Your task to perform on an android device: turn on priority inbox in the gmail app Image 0: 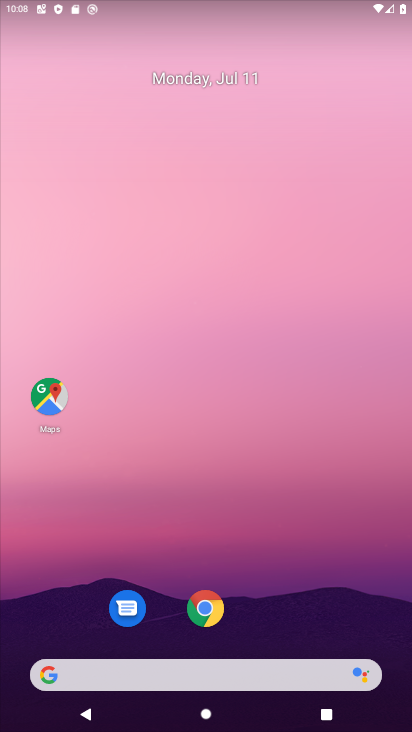
Step 0: drag from (35, 722) to (160, 0)
Your task to perform on an android device: turn on priority inbox in the gmail app Image 1: 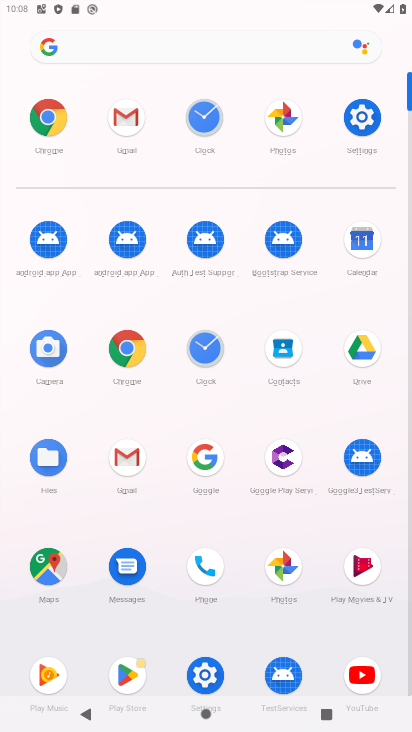
Step 1: click (112, 456)
Your task to perform on an android device: turn on priority inbox in the gmail app Image 2: 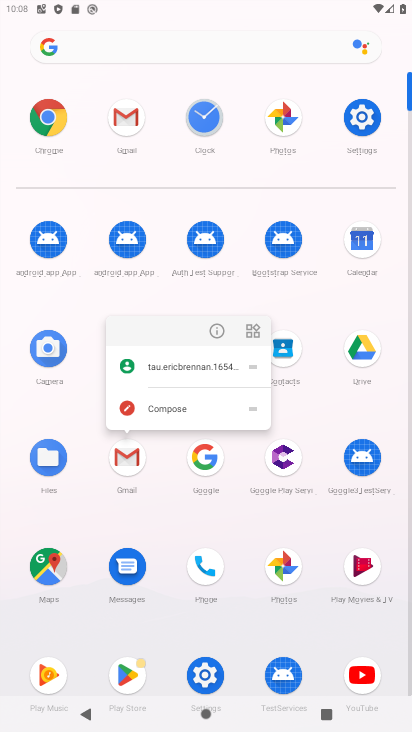
Step 2: click (121, 456)
Your task to perform on an android device: turn on priority inbox in the gmail app Image 3: 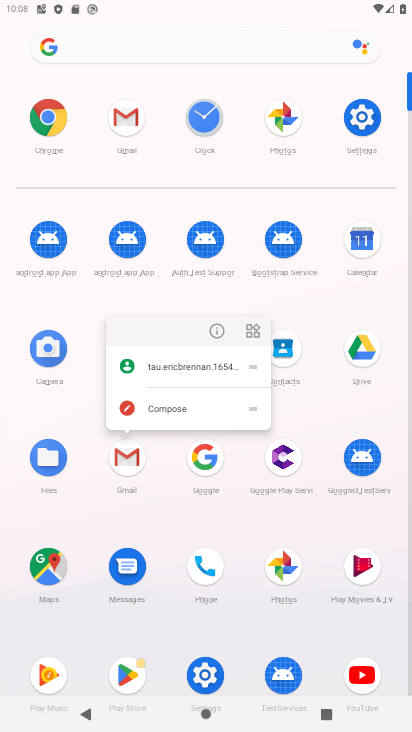
Step 3: click (121, 456)
Your task to perform on an android device: turn on priority inbox in the gmail app Image 4: 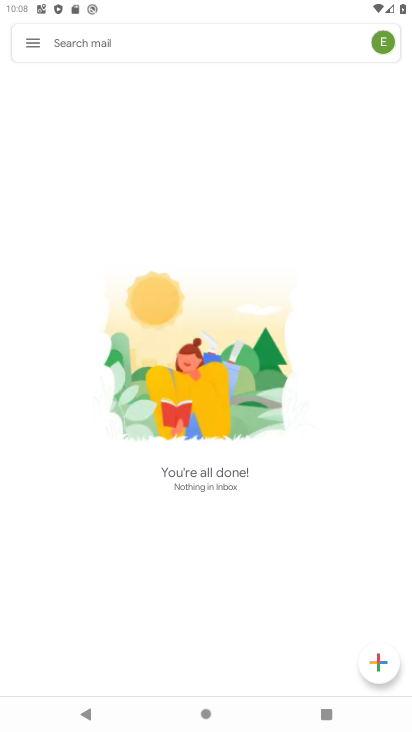
Step 4: click (25, 37)
Your task to perform on an android device: turn on priority inbox in the gmail app Image 5: 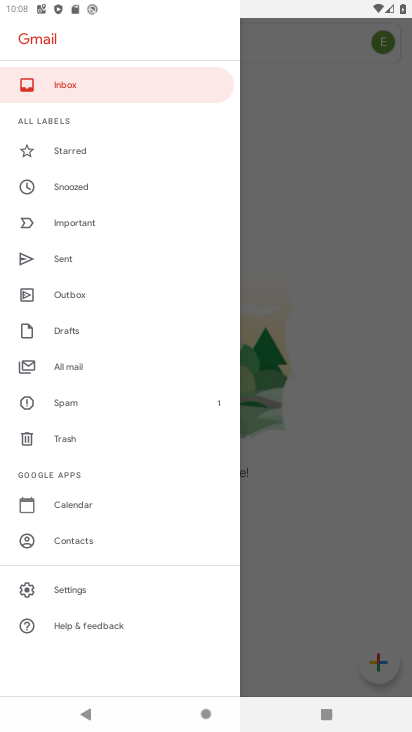
Step 5: click (92, 586)
Your task to perform on an android device: turn on priority inbox in the gmail app Image 6: 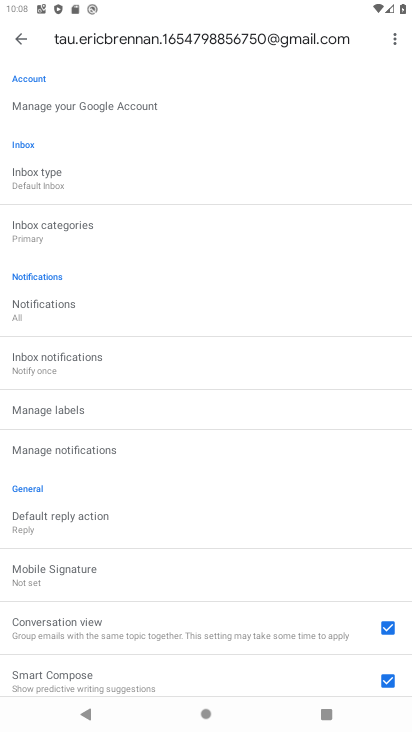
Step 6: click (64, 301)
Your task to perform on an android device: turn on priority inbox in the gmail app Image 7: 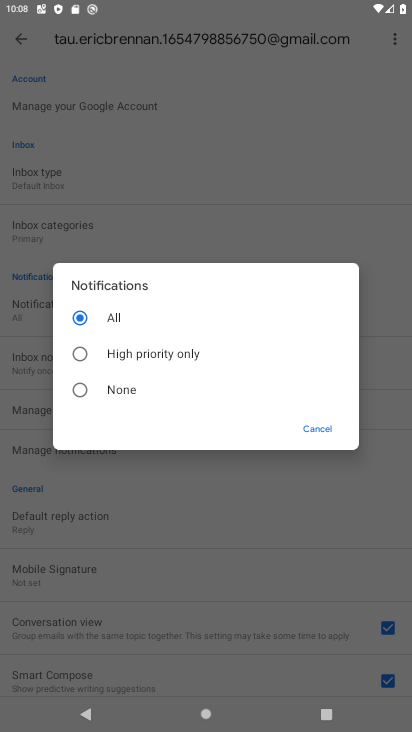
Step 7: click (316, 424)
Your task to perform on an android device: turn on priority inbox in the gmail app Image 8: 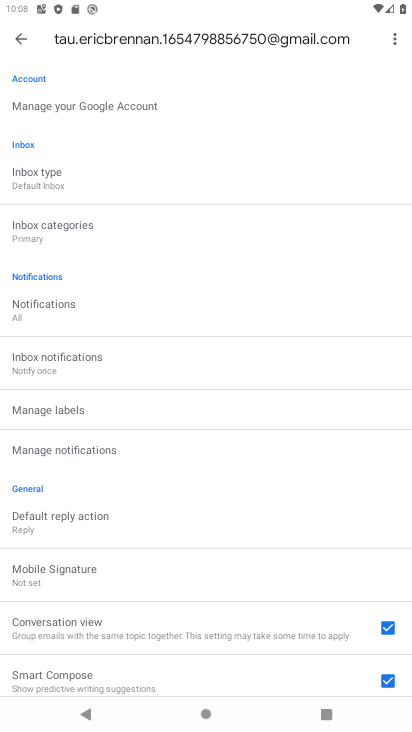
Step 8: click (91, 179)
Your task to perform on an android device: turn on priority inbox in the gmail app Image 9: 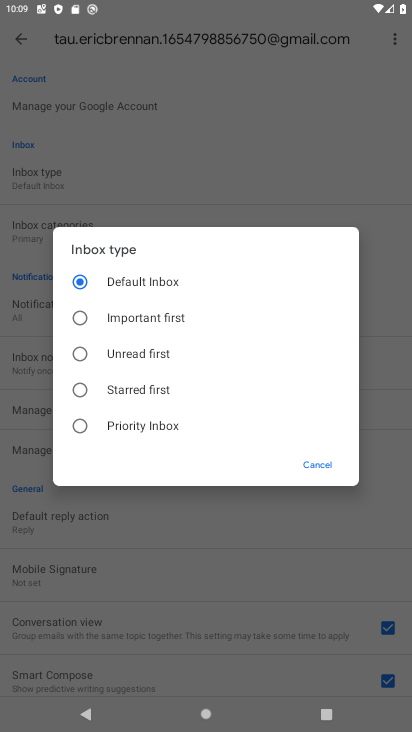
Step 9: click (87, 426)
Your task to perform on an android device: turn on priority inbox in the gmail app Image 10: 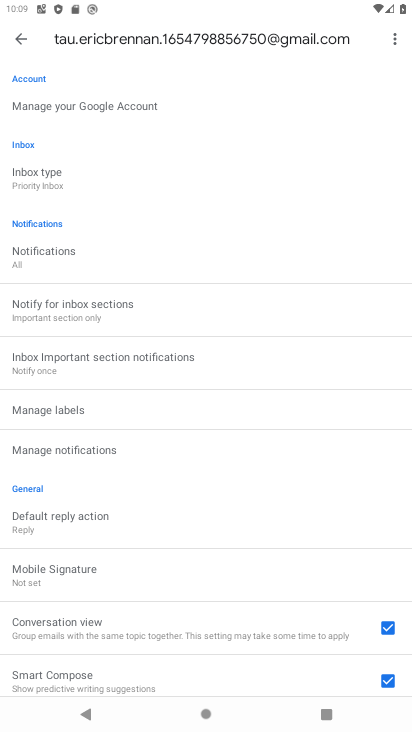
Step 10: task complete